Your task to perform on an android device: change notifications settings Image 0: 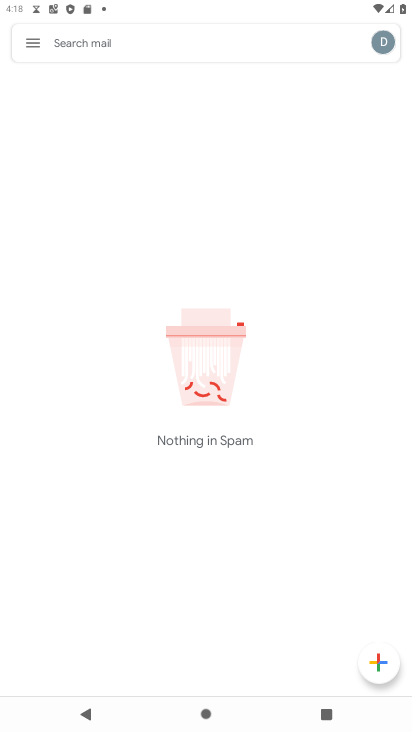
Step 0: press home button
Your task to perform on an android device: change notifications settings Image 1: 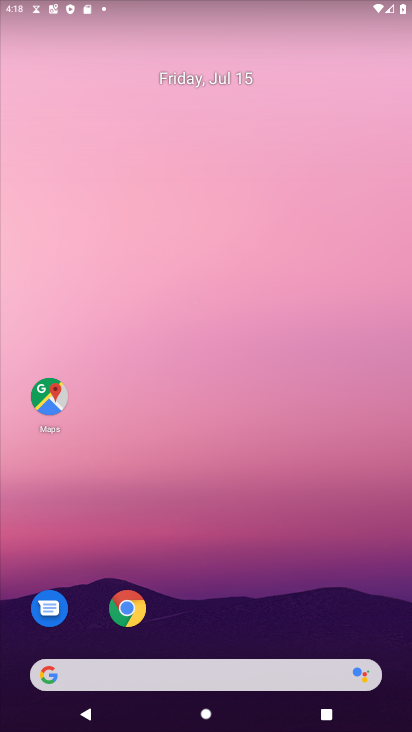
Step 1: drag from (241, 639) to (268, 24)
Your task to perform on an android device: change notifications settings Image 2: 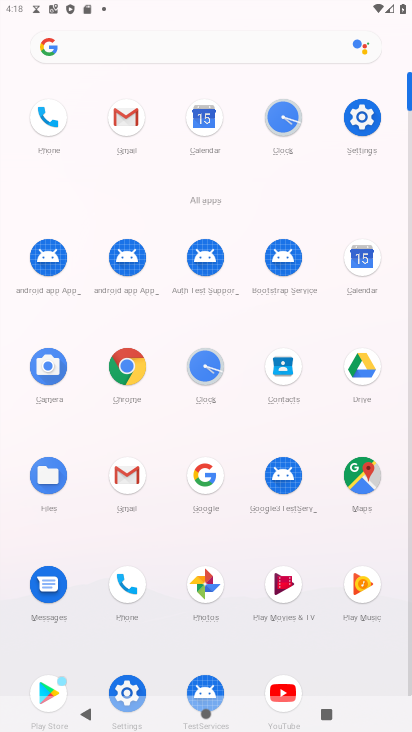
Step 2: click (357, 131)
Your task to perform on an android device: change notifications settings Image 3: 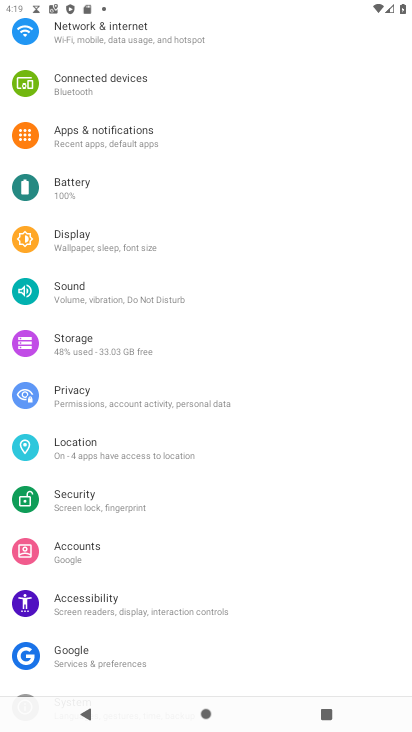
Step 3: drag from (213, 221) to (221, 426)
Your task to perform on an android device: change notifications settings Image 4: 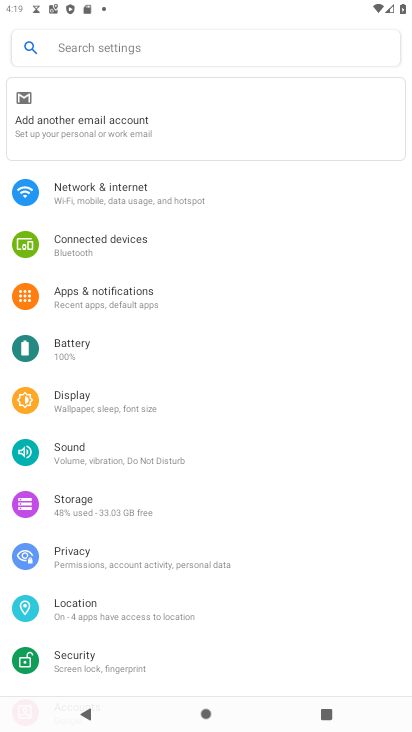
Step 4: click (131, 307)
Your task to perform on an android device: change notifications settings Image 5: 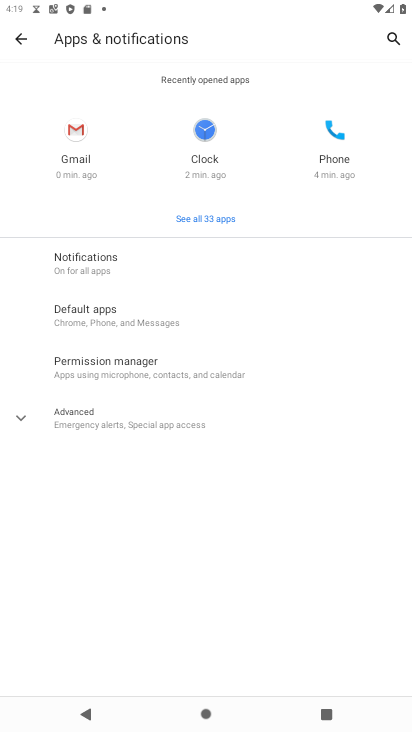
Step 5: click (119, 255)
Your task to perform on an android device: change notifications settings Image 6: 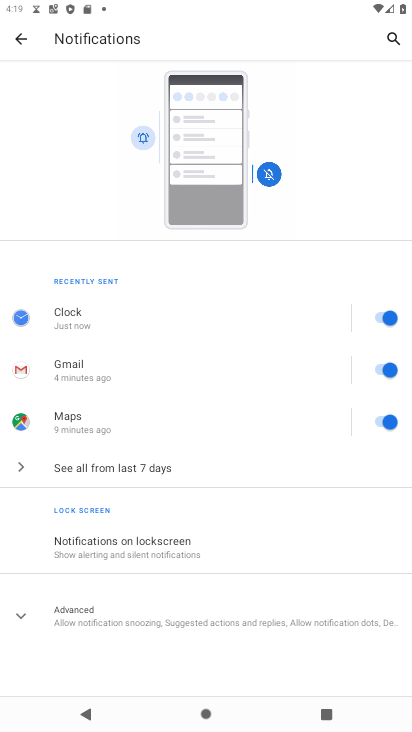
Step 6: click (136, 468)
Your task to perform on an android device: change notifications settings Image 7: 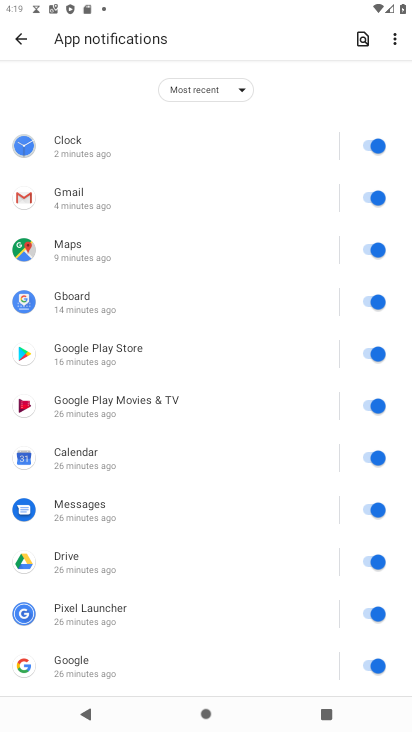
Step 7: click (354, 146)
Your task to perform on an android device: change notifications settings Image 8: 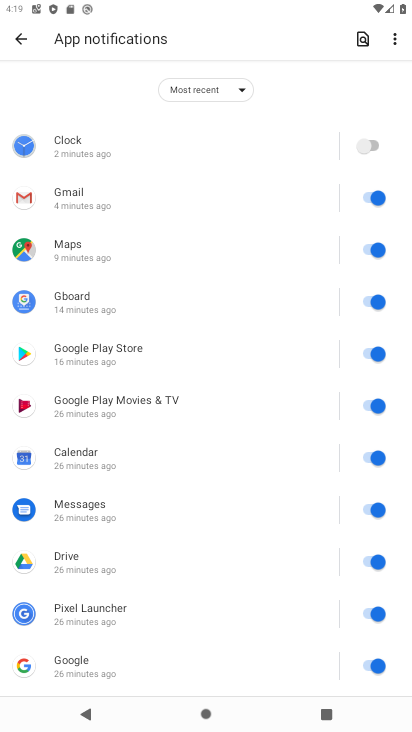
Step 8: click (357, 184)
Your task to perform on an android device: change notifications settings Image 9: 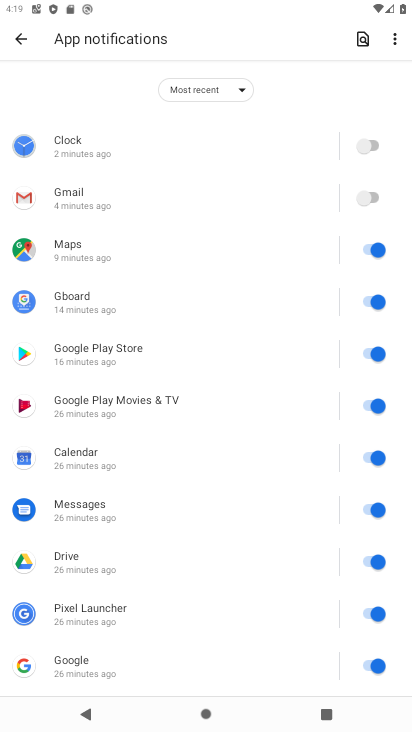
Step 9: click (363, 264)
Your task to perform on an android device: change notifications settings Image 10: 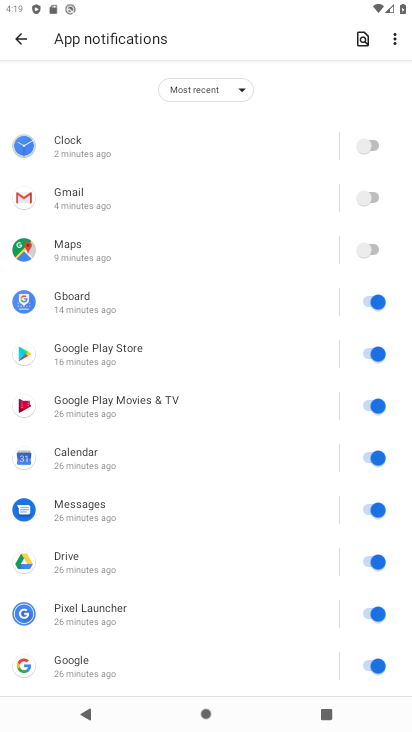
Step 10: click (365, 315)
Your task to perform on an android device: change notifications settings Image 11: 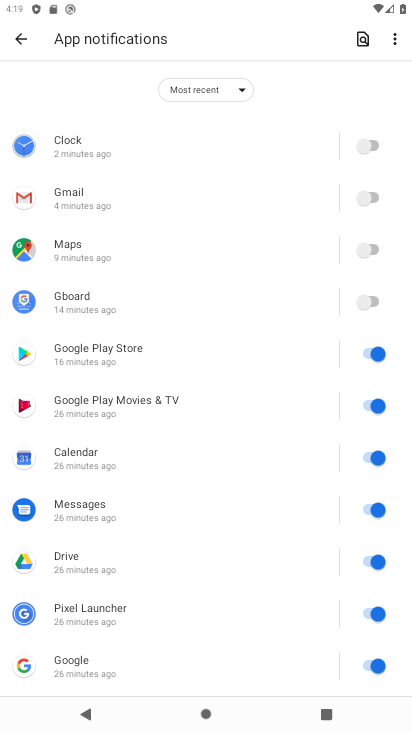
Step 11: click (363, 357)
Your task to perform on an android device: change notifications settings Image 12: 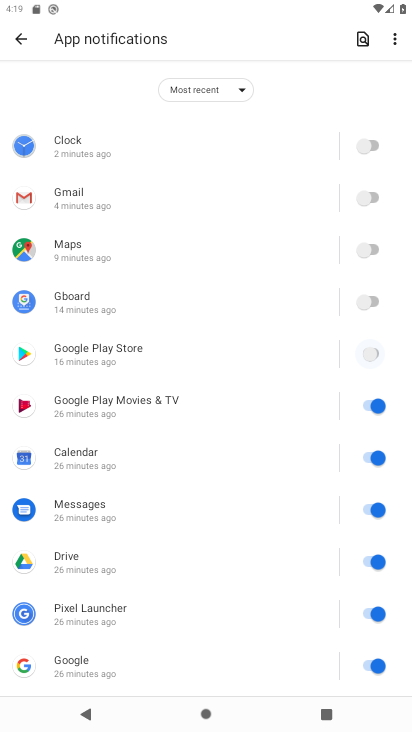
Step 12: click (355, 412)
Your task to perform on an android device: change notifications settings Image 13: 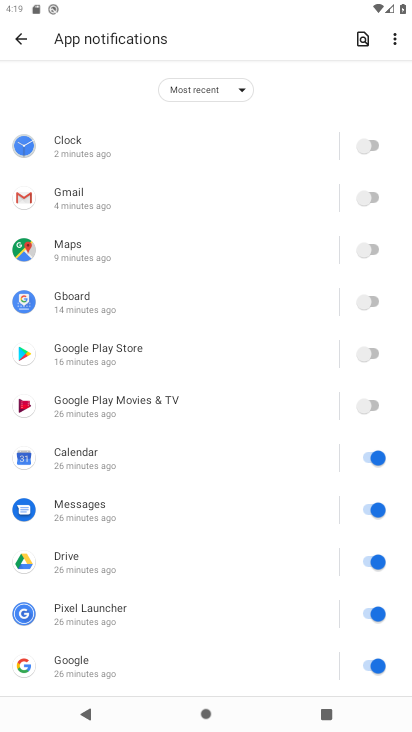
Step 13: click (360, 463)
Your task to perform on an android device: change notifications settings Image 14: 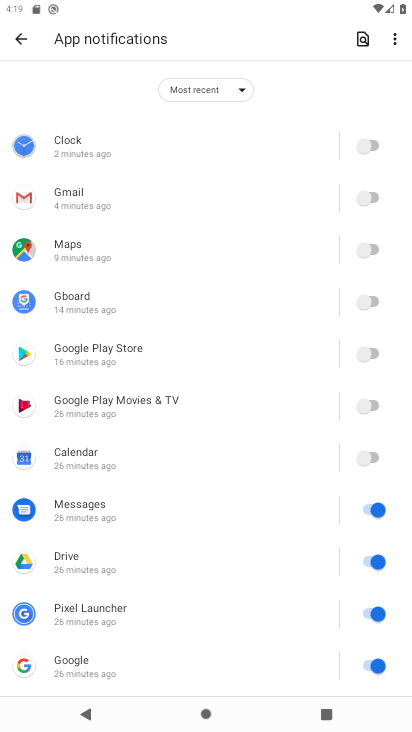
Step 14: click (359, 510)
Your task to perform on an android device: change notifications settings Image 15: 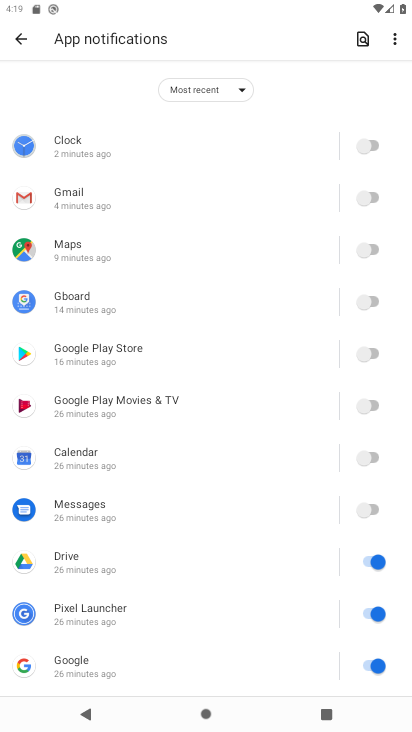
Step 15: click (364, 557)
Your task to perform on an android device: change notifications settings Image 16: 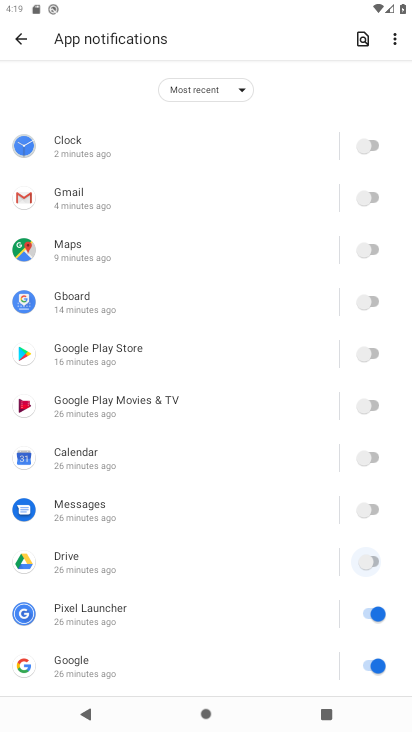
Step 16: click (364, 619)
Your task to perform on an android device: change notifications settings Image 17: 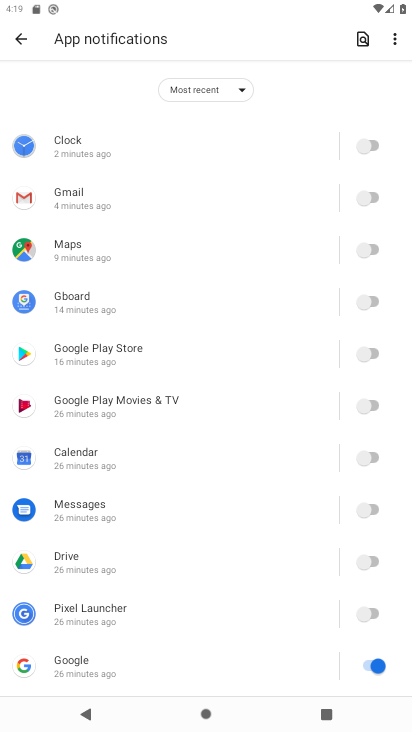
Step 17: click (365, 662)
Your task to perform on an android device: change notifications settings Image 18: 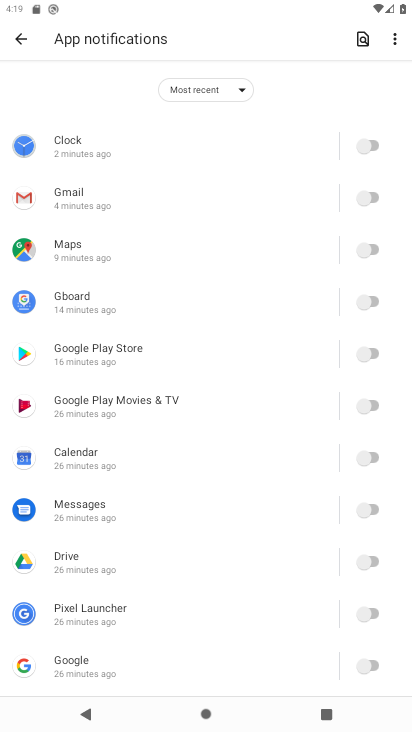
Step 18: task complete